Your task to perform on an android device: Open Yahoo.com Image 0: 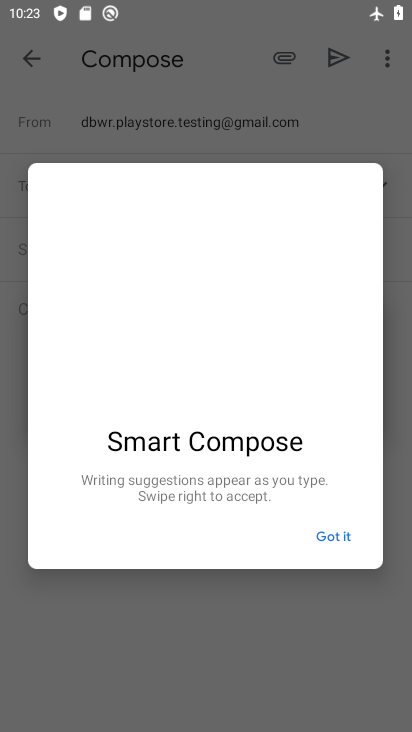
Step 0: press home button
Your task to perform on an android device: Open Yahoo.com Image 1: 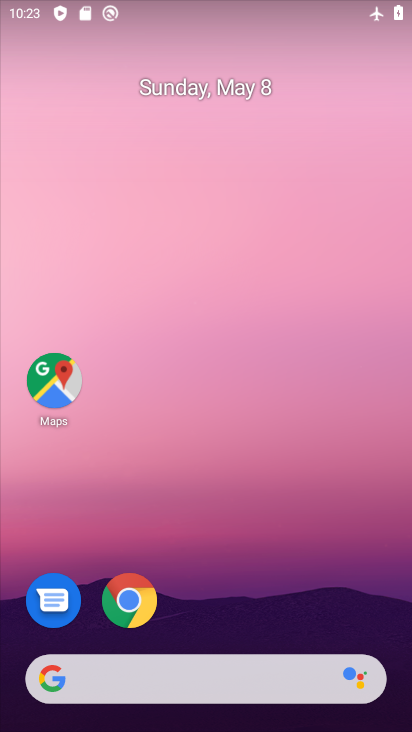
Step 1: drag from (214, 702) to (214, 102)
Your task to perform on an android device: Open Yahoo.com Image 2: 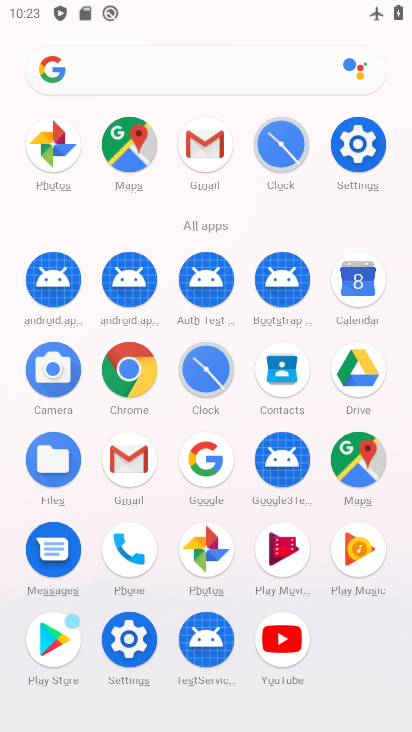
Step 2: click (129, 371)
Your task to perform on an android device: Open Yahoo.com Image 3: 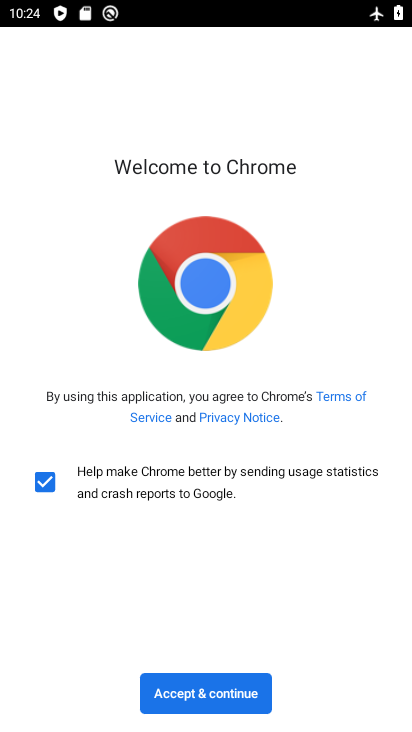
Step 3: click (219, 704)
Your task to perform on an android device: Open Yahoo.com Image 4: 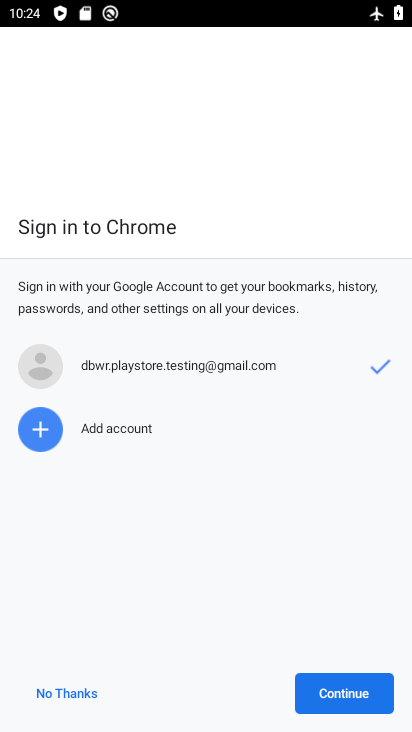
Step 4: click (322, 692)
Your task to perform on an android device: Open Yahoo.com Image 5: 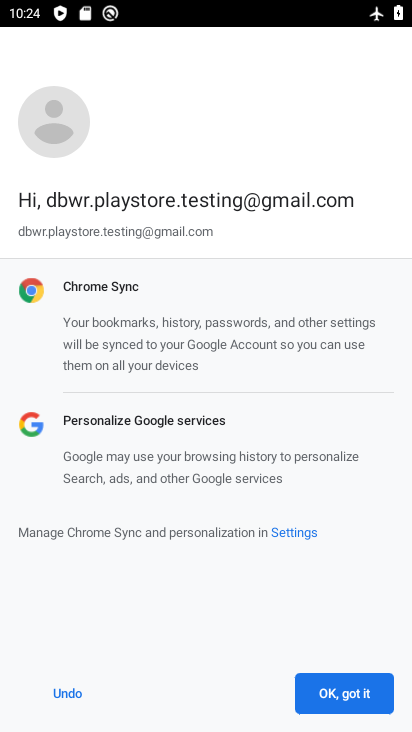
Step 5: click (338, 696)
Your task to perform on an android device: Open Yahoo.com Image 6: 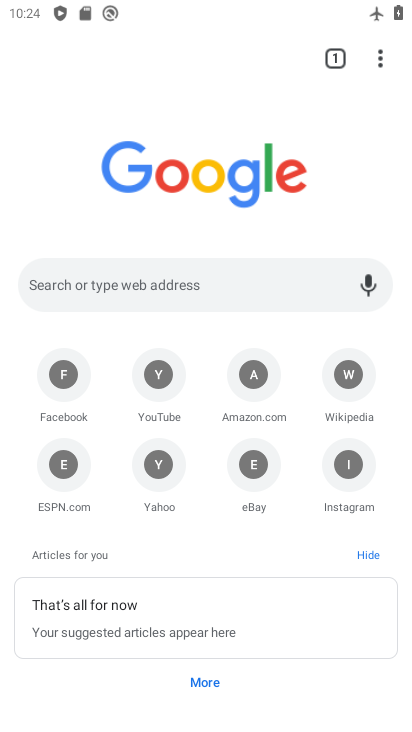
Step 6: click (160, 466)
Your task to perform on an android device: Open Yahoo.com Image 7: 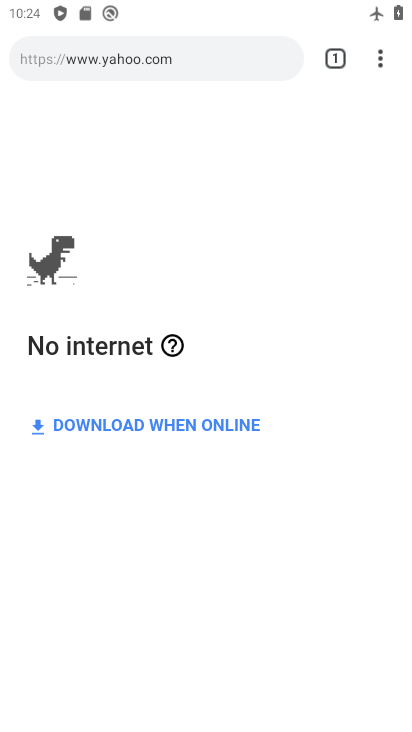
Step 7: task complete